Your task to perform on an android device: check storage Image 0: 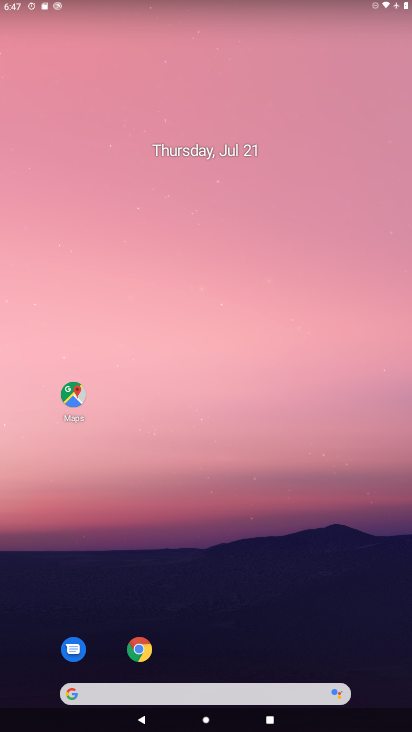
Step 0: drag from (346, 674) to (123, 26)
Your task to perform on an android device: check storage Image 1: 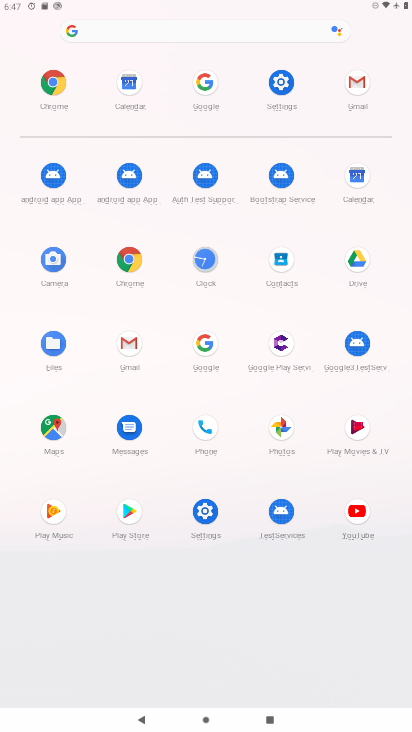
Step 1: click (286, 90)
Your task to perform on an android device: check storage Image 2: 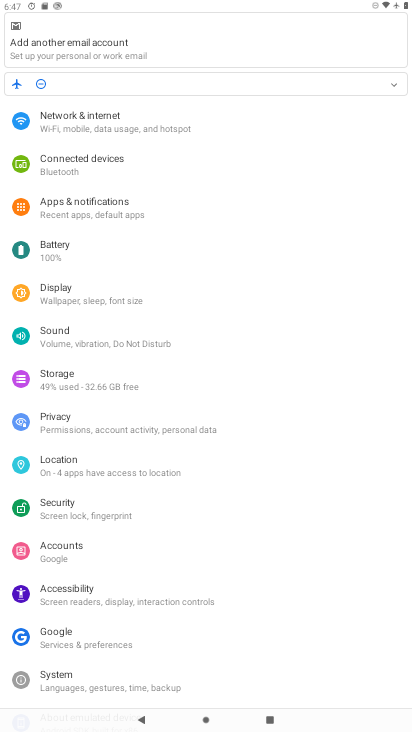
Step 2: click (69, 383)
Your task to perform on an android device: check storage Image 3: 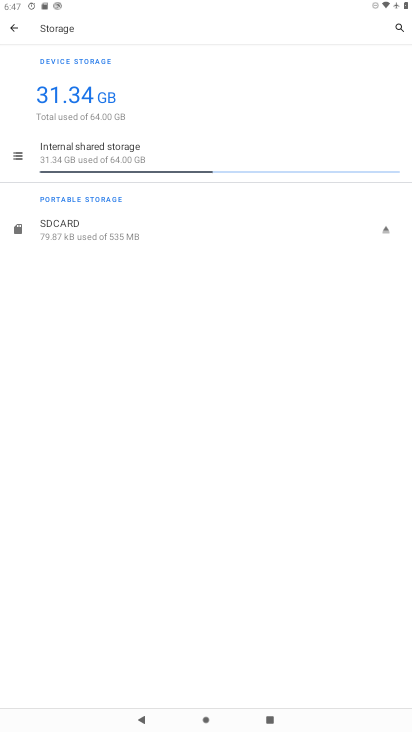
Step 3: click (118, 151)
Your task to perform on an android device: check storage Image 4: 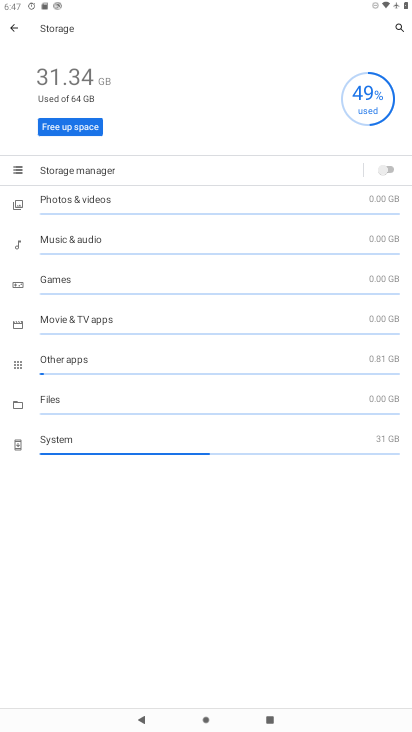
Step 4: task complete